Your task to perform on an android device: Open Chrome and go to settings Image 0: 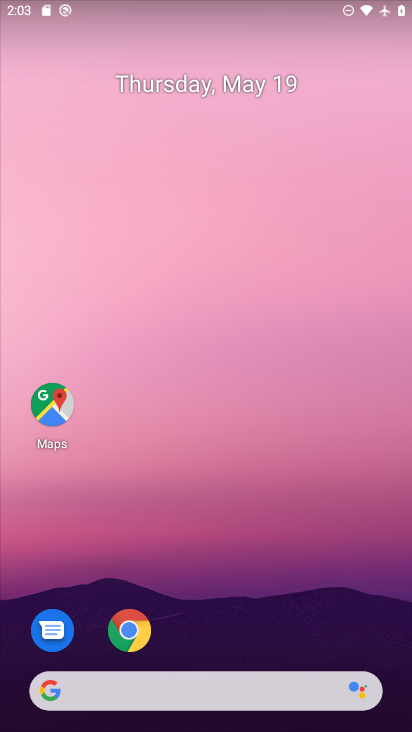
Step 0: click (135, 647)
Your task to perform on an android device: Open Chrome and go to settings Image 1: 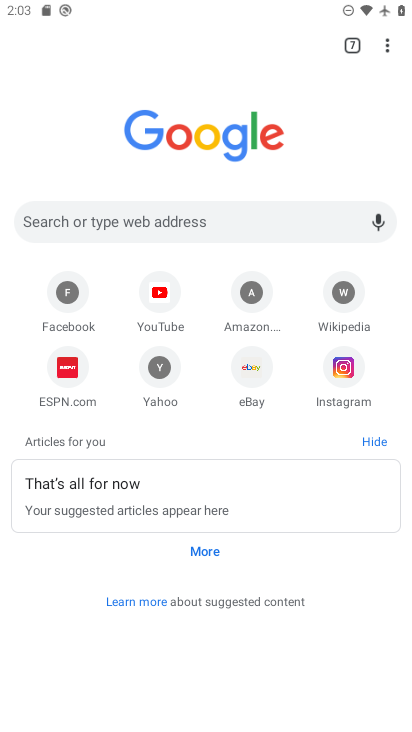
Step 1: click (386, 37)
Your task to perform on an android device: Open Chrome and go to settings Image 2: 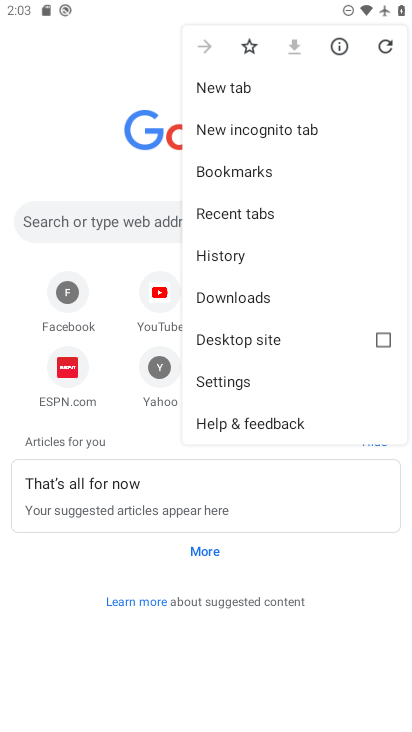
Step 2: click (209, 381)
Your task to perform on an android device: Open Chrome and go to settings Image 3: 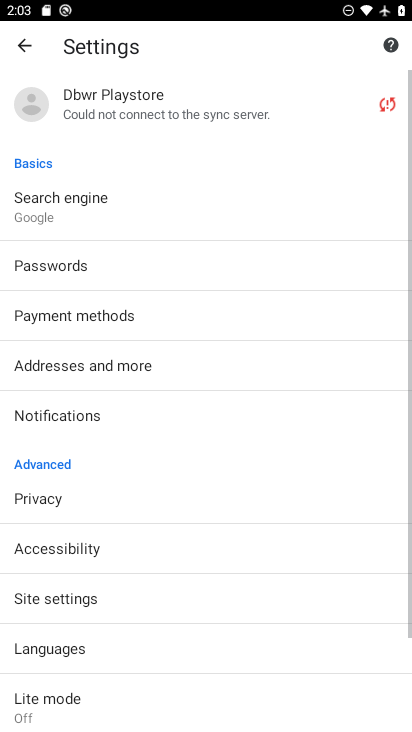
Step 3: task complete